Your task to perform on an android device: clear all cookies in the chrome app Image 0: 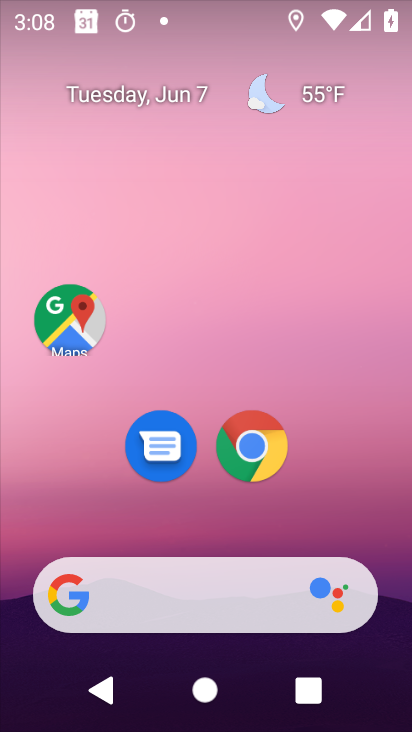
Step 0: click (258, 448)
Your task to perform on an android device: clear all cookies in the chrome app Image 1: 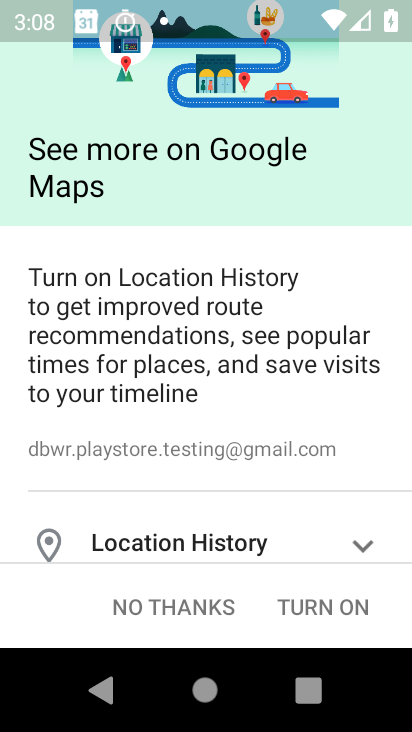
Step 1: press home button
Your task to perform on an android device: clear all cookies in the chrome app Image 2: 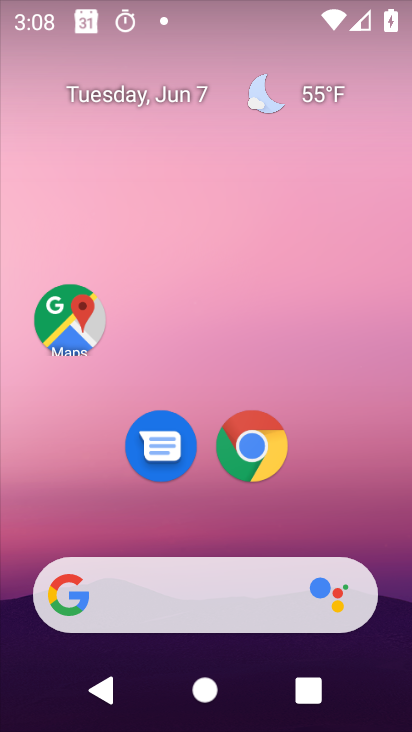
Step 2: click (257, 430)
Your task to perform on an android device: clear all cookies in the chrome app Image 3: 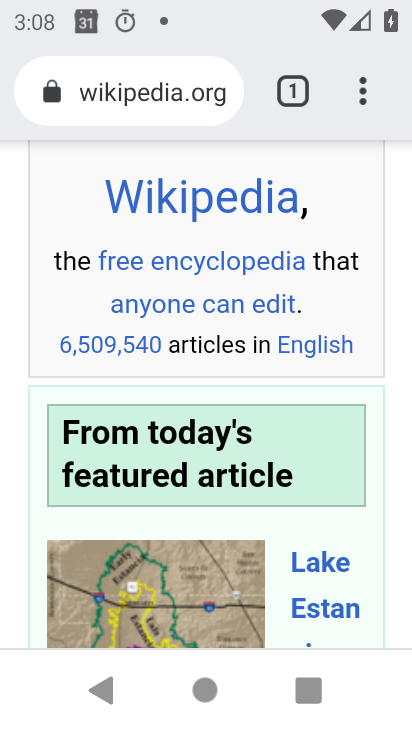
Step 3: click (367, 96)
Your task to perform on an android device: clear all cookies in the chrome app Image 4: 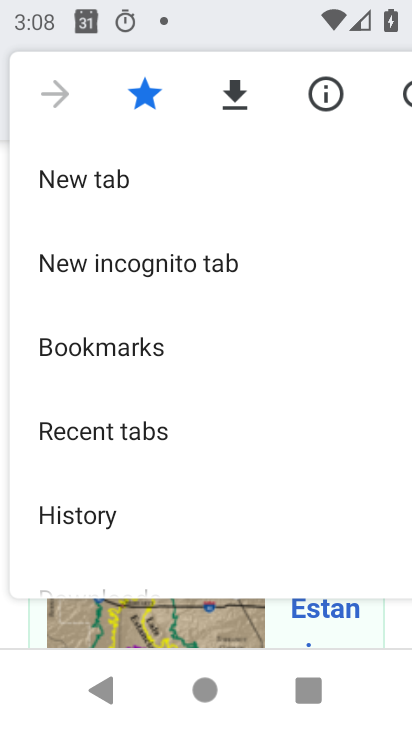
Step 4: drag from (146, 480) to (183, 236)
Your task to perform on an android device: clear all cookies in the chrome app Image 5: 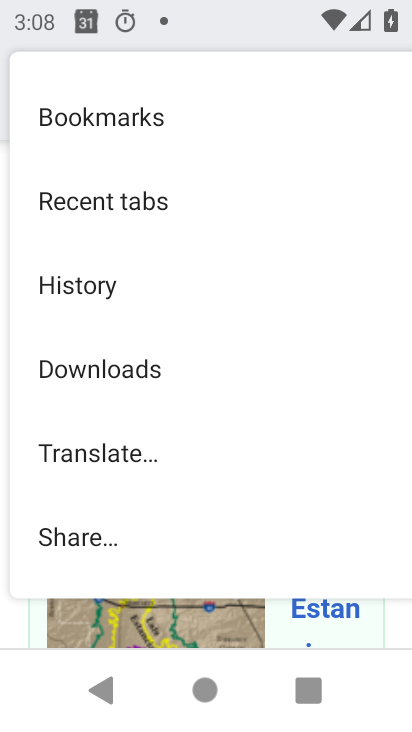
Step 5: click (69, 281)
Your task to perform on an android device: clear all cookies in the chrome app Image 6: 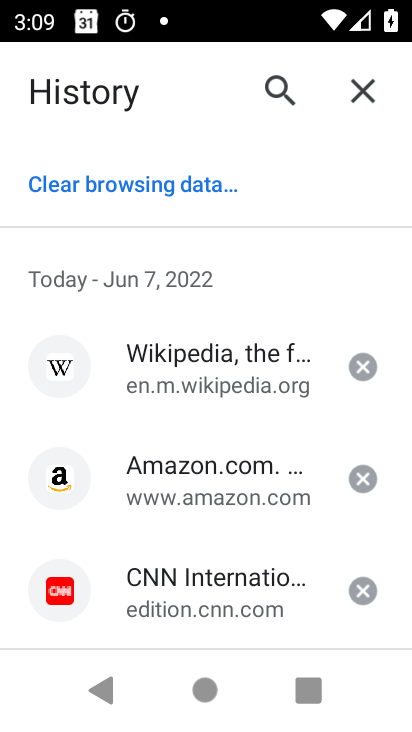
Step 6: click (128, 182)
Your task to perform on an android device: clear all cookies in the chrome app Image 7: 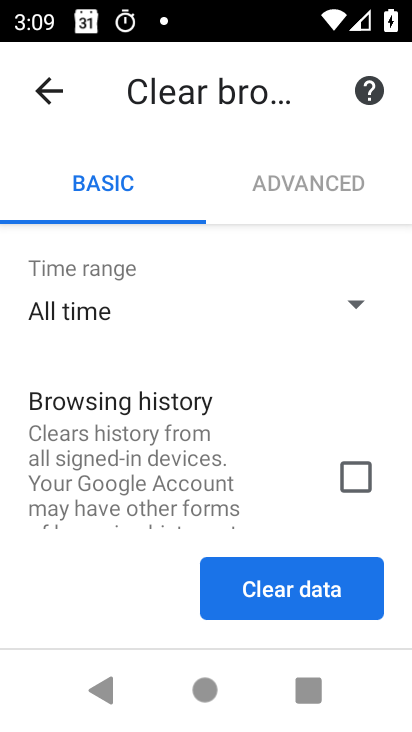
Step 7: drag from (231, 501) to (279, 49)
Your task to perform on an android device: clear all cookies in the chrome app Image 8: 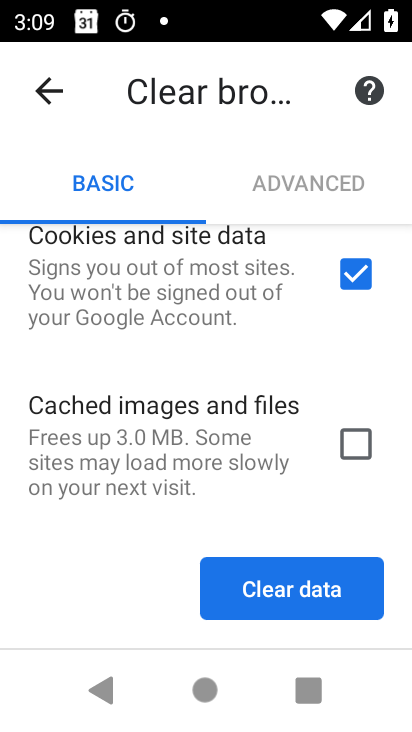
Step 8: click (248, 583)
Your task to perform on an android device: clear all cookies in the chrome app Image 9: 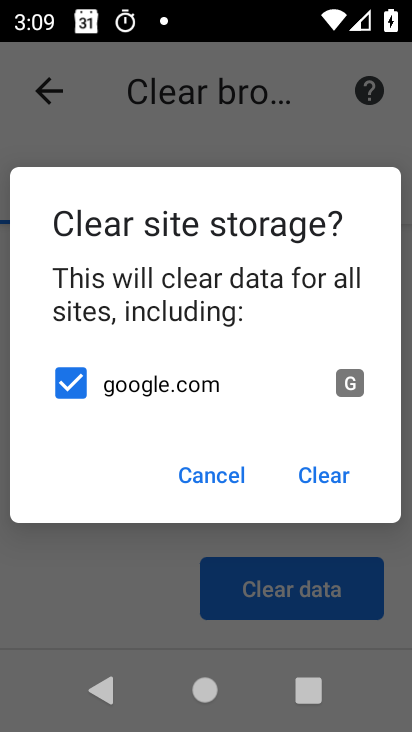
Step 9: click (312, 477)
Your task to perform on an android device: clear all cookies in the chrome app Image 10: 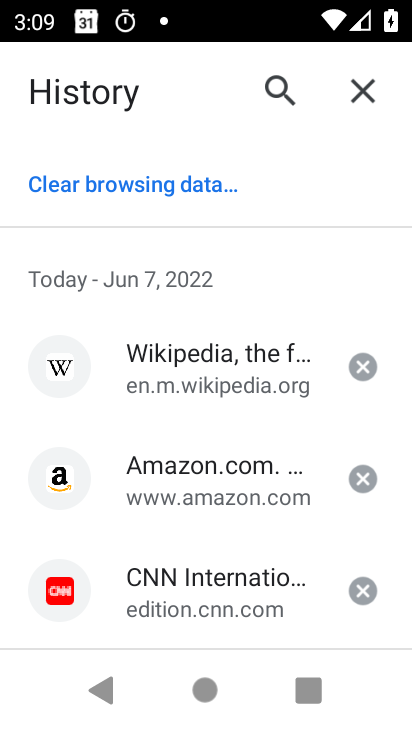
Step 10: task complete